Your task to perform on an android device: uninstall "LiveIn - Share Your Moment" Image 0: 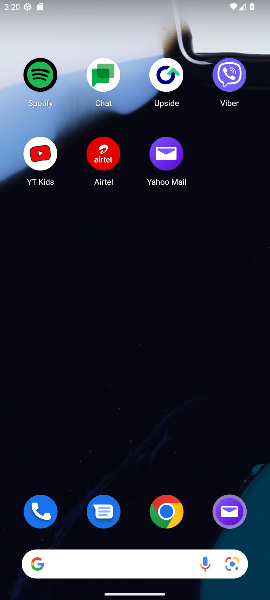
Step 0: drag from (139, 326) to (173, 47)
Your task to perform on an android device: uninstall "LiveIn - Share Your Moment" Image 1: 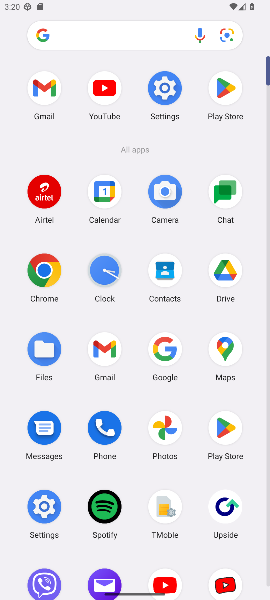
Step 1: click (220, 101)
Your task to perform on an android device: uninstall "LiveIn - Share Your Moment" Image 2: 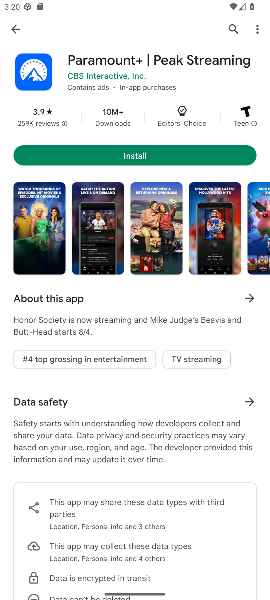
Step 2: click (16, 32)
Your task to perform on an android device: uninstall "LiveIn - Share Your Moment" Image 3: 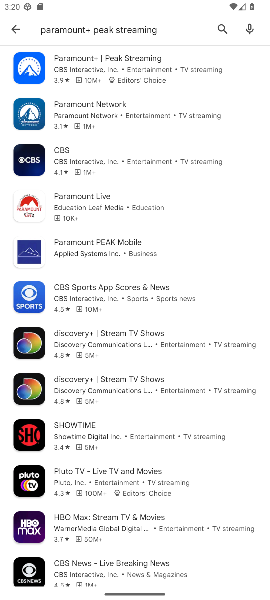
Step 3: click (14, 27)
Your task to perform on an android device: uninstall "LiveIn - Share Your Moment" Image 4: 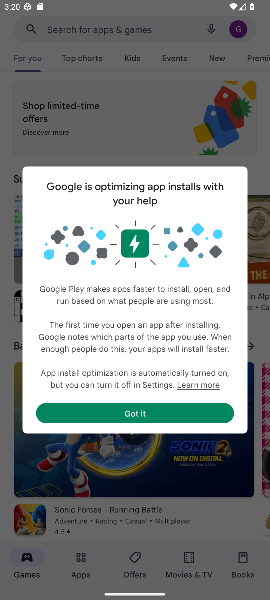
Step 4: click (125, 410)
Your task to perform on an android device: uninstall "LiveIn - Share Your Moment" Image 5: 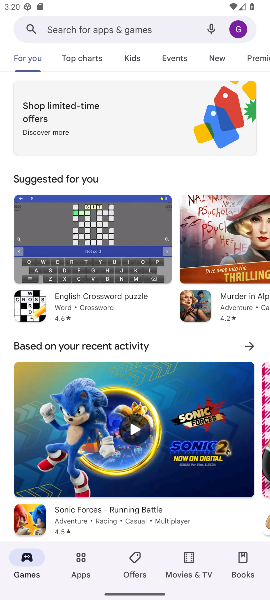
Step 5: click (111, 29)
Your task to perform on an android device: uninstall "LiveIn - Share Your Moment" Image 6: 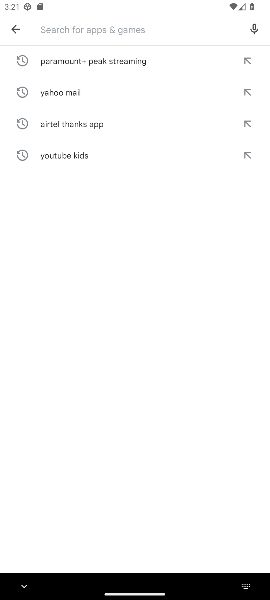
Step 6: type "LiveIn - Share Your Moment"
Your task to perform on an android device: uninstall "LiveIn - Share Your Moment" Image 7: 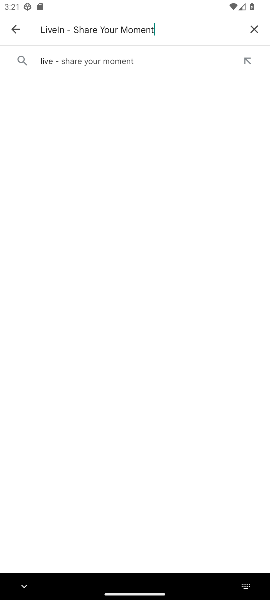
Step 7: click (73, 59)
Your task to perform on an android device: uninstall "LiveIn - Share Your Moment" Image 8: 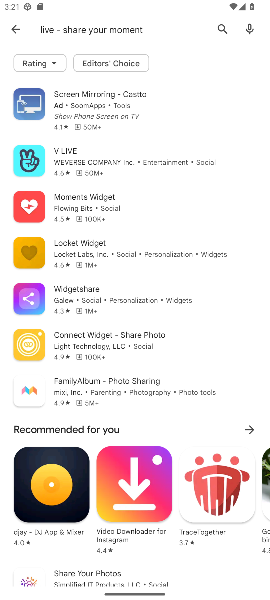
Step 8: task complete